Your task to perform on an android device: see creations saved in the google photos Image 0: 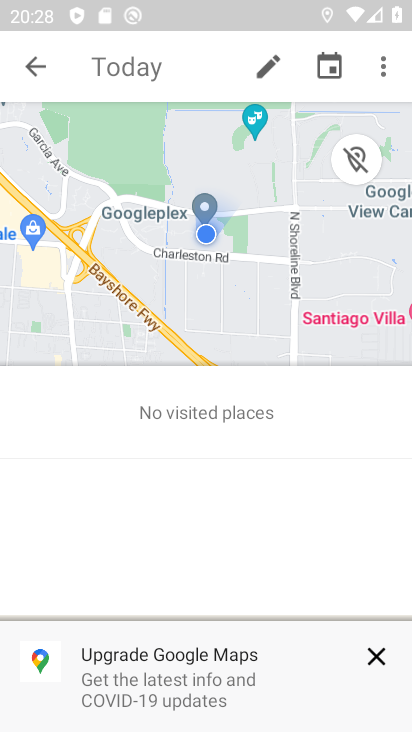
Step 0: press home button
Your task to perform on an android device: see creations saved in the google photos Image 1: 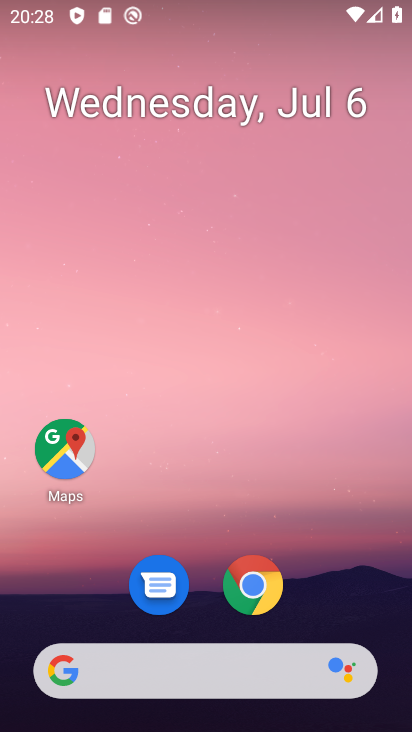
Step 1: drag from (218, 459) to (253, 0)
Your task to perform on an android device: see creations saved in the google photos Image 2: 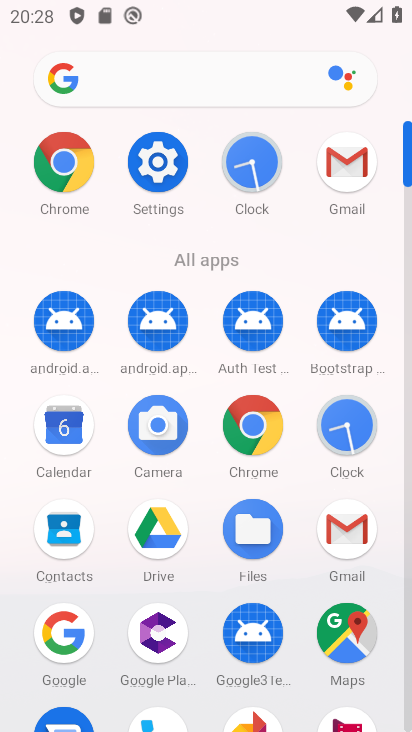
Step 2: drag from (215, 594) to (222, 167)
Your task to perform on an android device: see creations saved in the google photos Image 3: 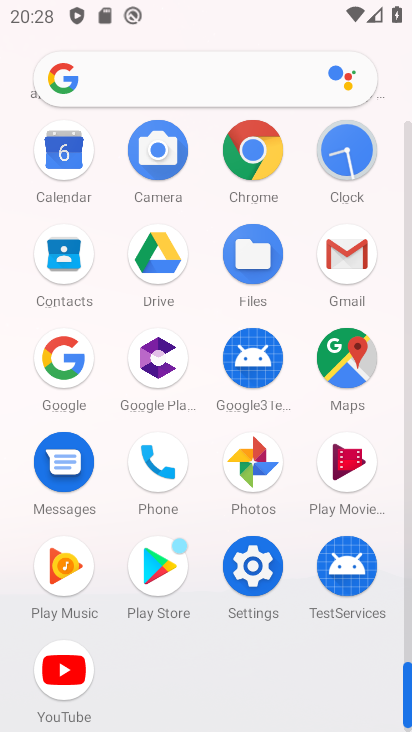
Step 3: click (253, 477)
Your task to perform on an android device: see creations saved in the google photos Image 4: 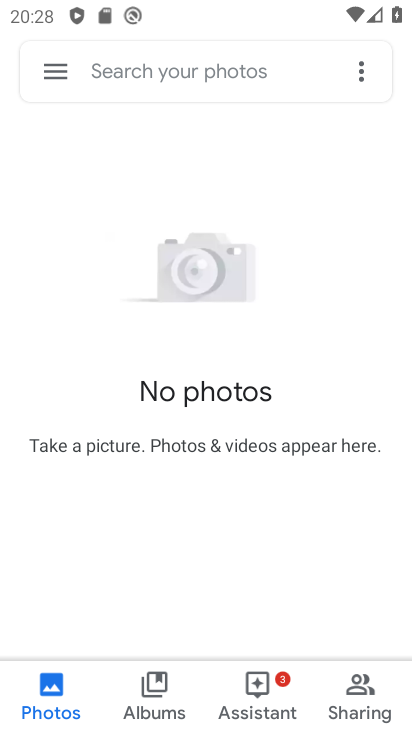
Step 4: click (53, 69)
Your task to perform on an android device: see creations saved in the google photos Image 5: 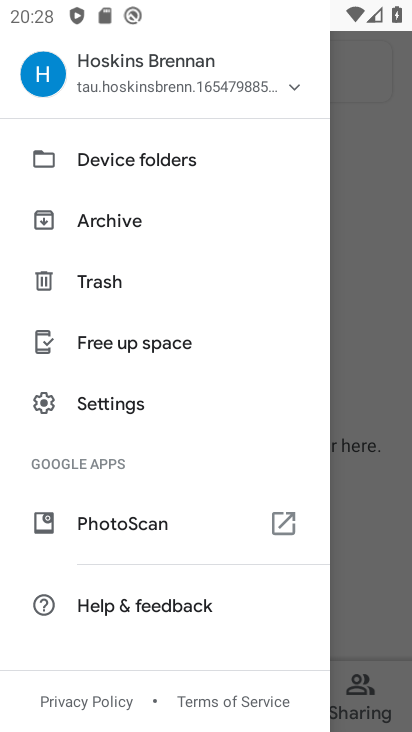
Step 5: click (353, 199)
Your task to perform on an android device: see creations saved in the google photos Image 6: 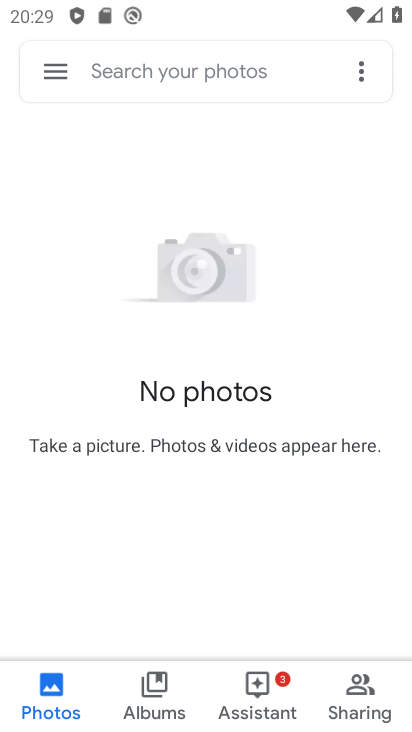
Step 6: click (244, 60)
Your task to perform on an android device: see creations saved in the google photos Image 7: 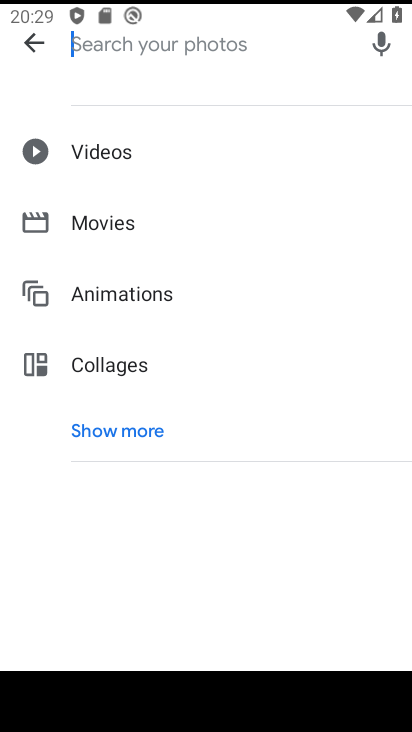
Step 7: click (132, 430)
Your task to perform on an android device: see creations saved in the google photos Image 8: 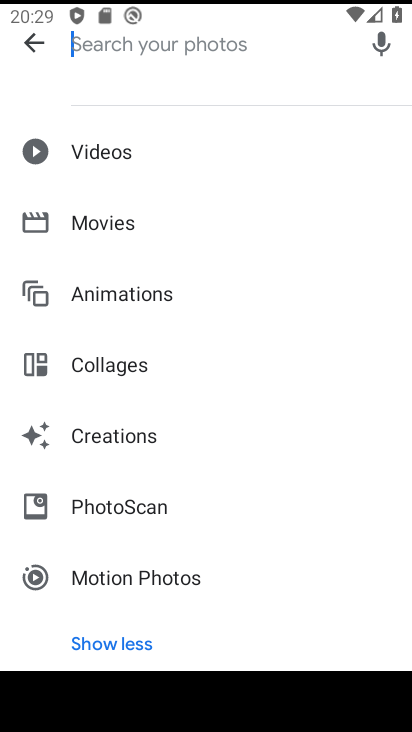
Step 8: click (133, 433)
Your task to perform on an android device: see creations saved in the google photos Image 9: 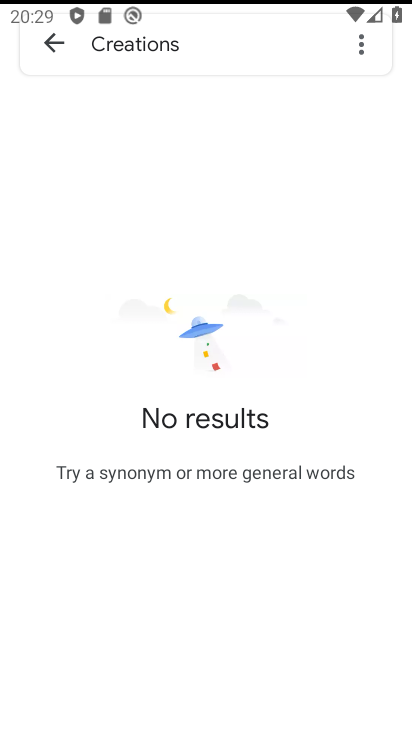
Step 9: task complete